Your task to perform on an android device: Open Google Chrome and click the shortcut for Amazon.com Image 0: 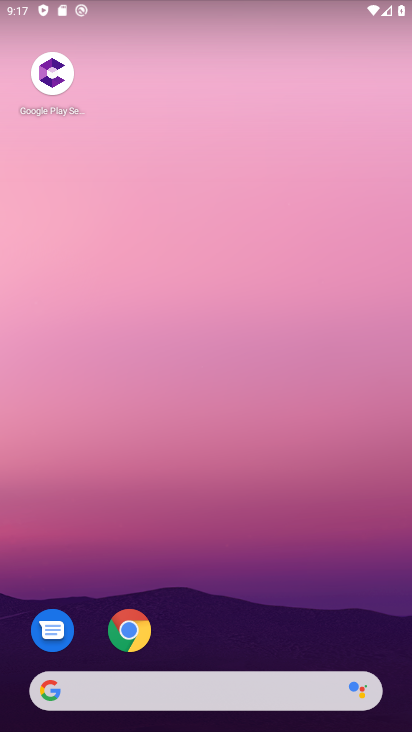
Step 0: click (130, 625)
Your task to perform on an android device: Open Google Chrome and click the shortcut for Amazon.com Image 1: 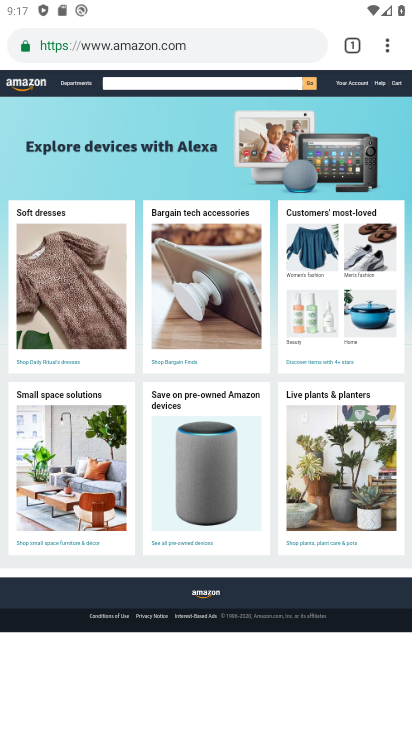
Step 1: click (383, 47)
Your task to perform on an android device: Open Google Chrome and click the shortcut for Amazon.com Image 2: 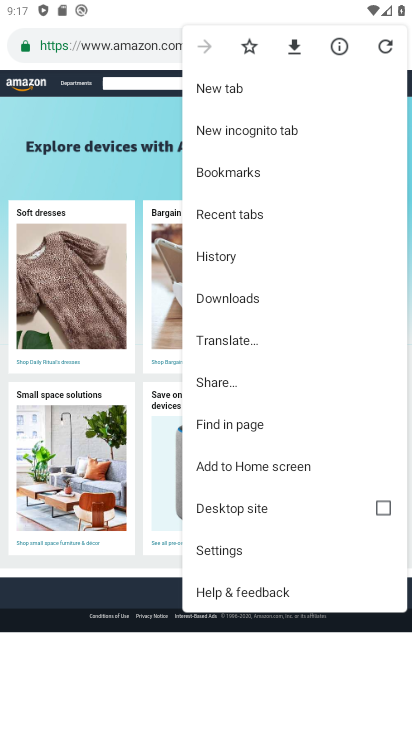
Step 2: click (210, 93)
Your task to perform on an android device: Open Google Chrome and click the shortcut for Amazon.com Image 3: 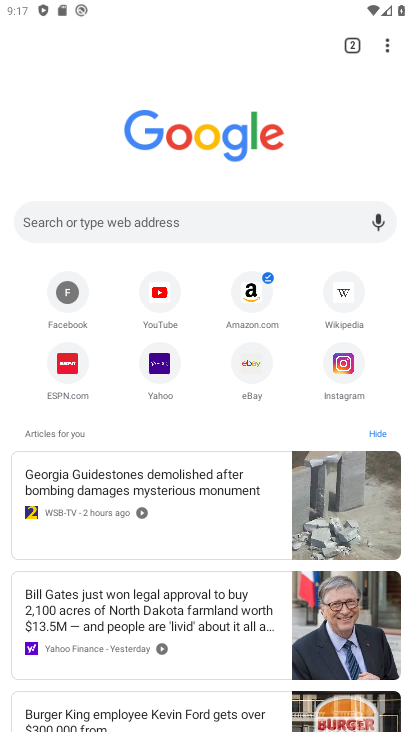
Step 3: click (254, 289)
Your task to perform on an android device: Open Google Chrome and click the shortcut for Amazon.com Image 4: 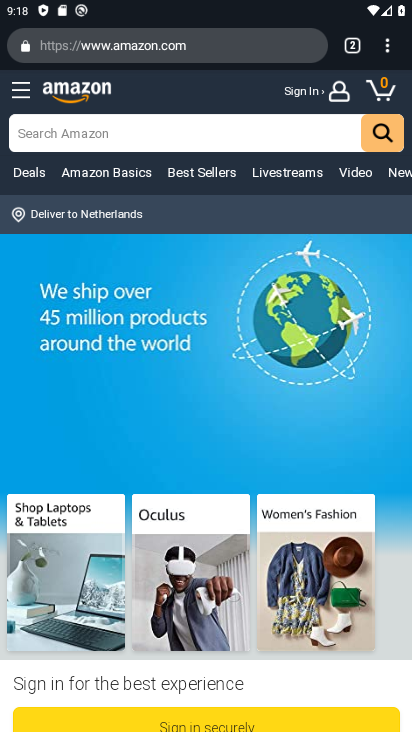
Step 4: task complete